Your task to perform on an android device: set an alarm Image 0: 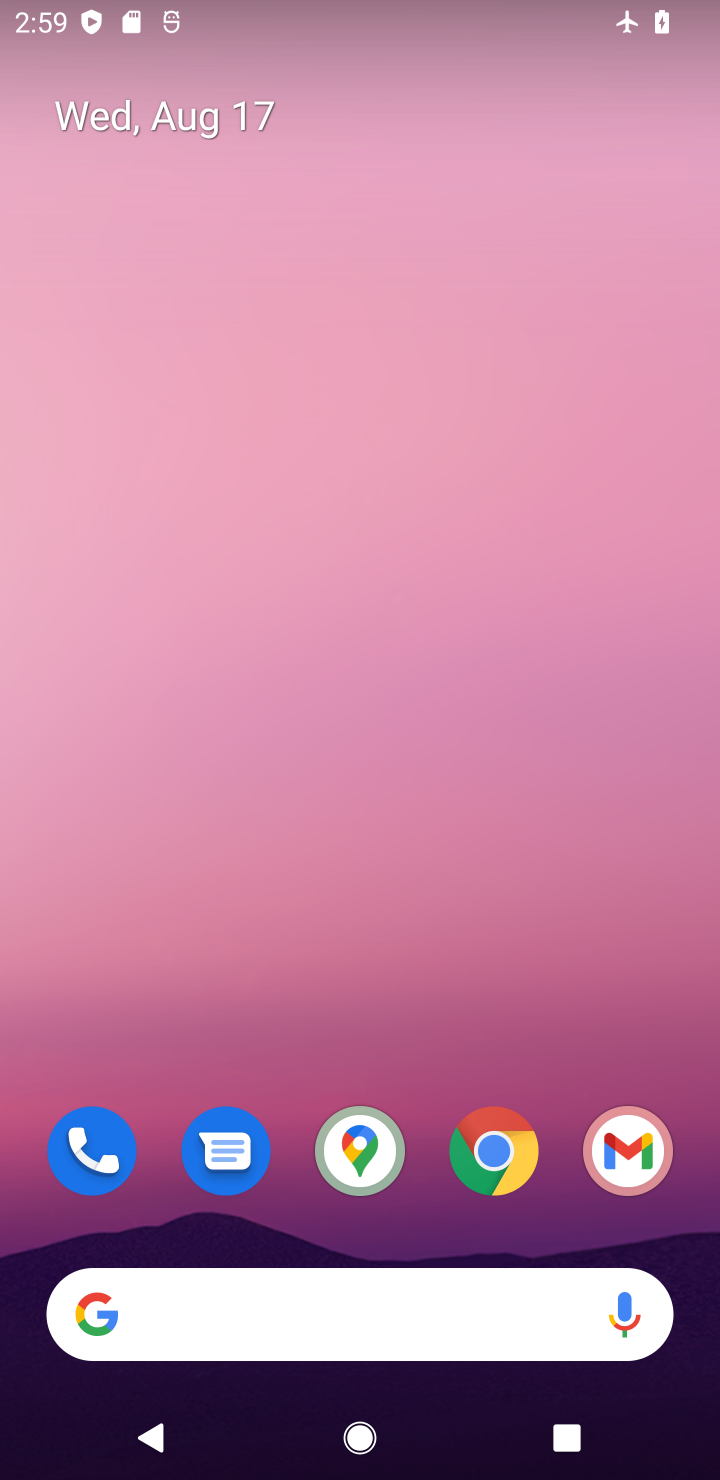
Step 0: drag from (376, 334) to (340, 82)
Your task to perform on an android device: set an alarm Image 1: 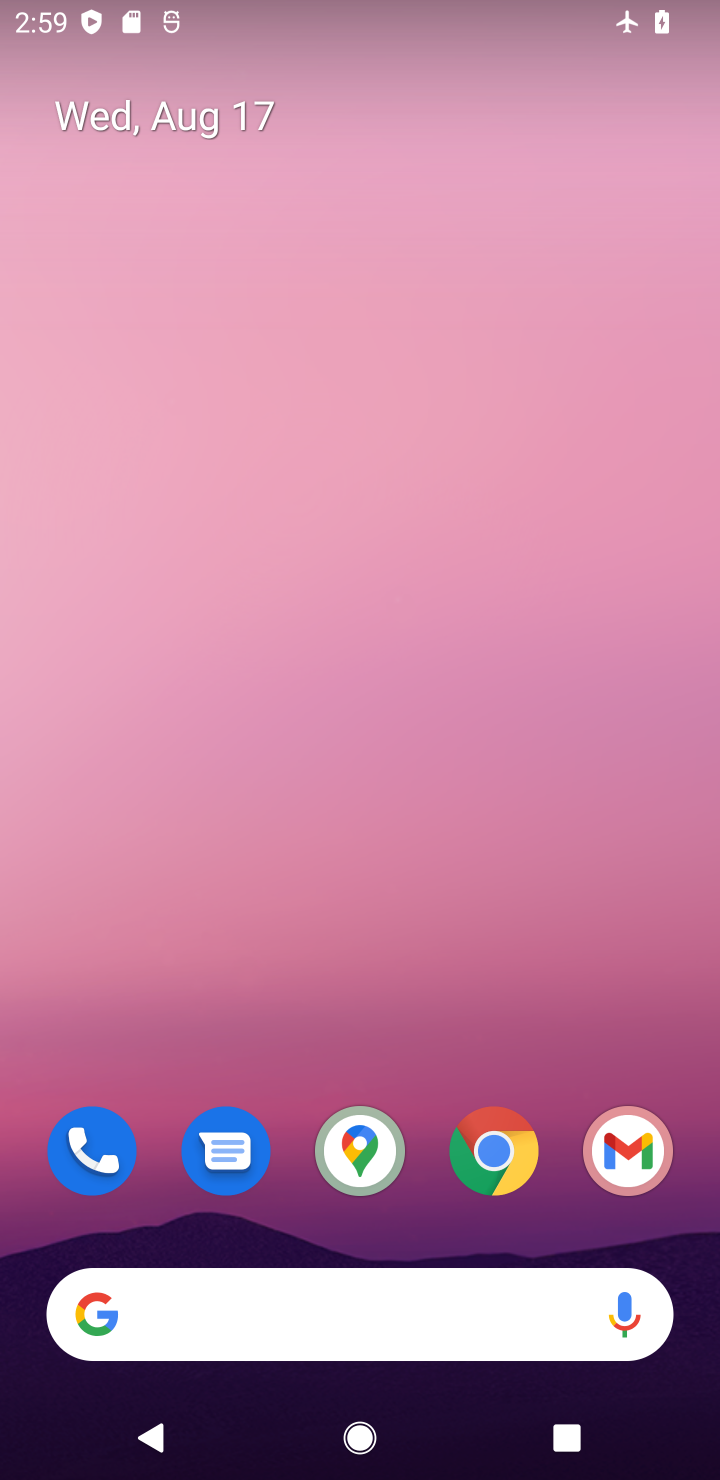
Step 1: drag from (314, 975) to (323, 339)
Your task to perform on an android device: set an alarm Image 2: 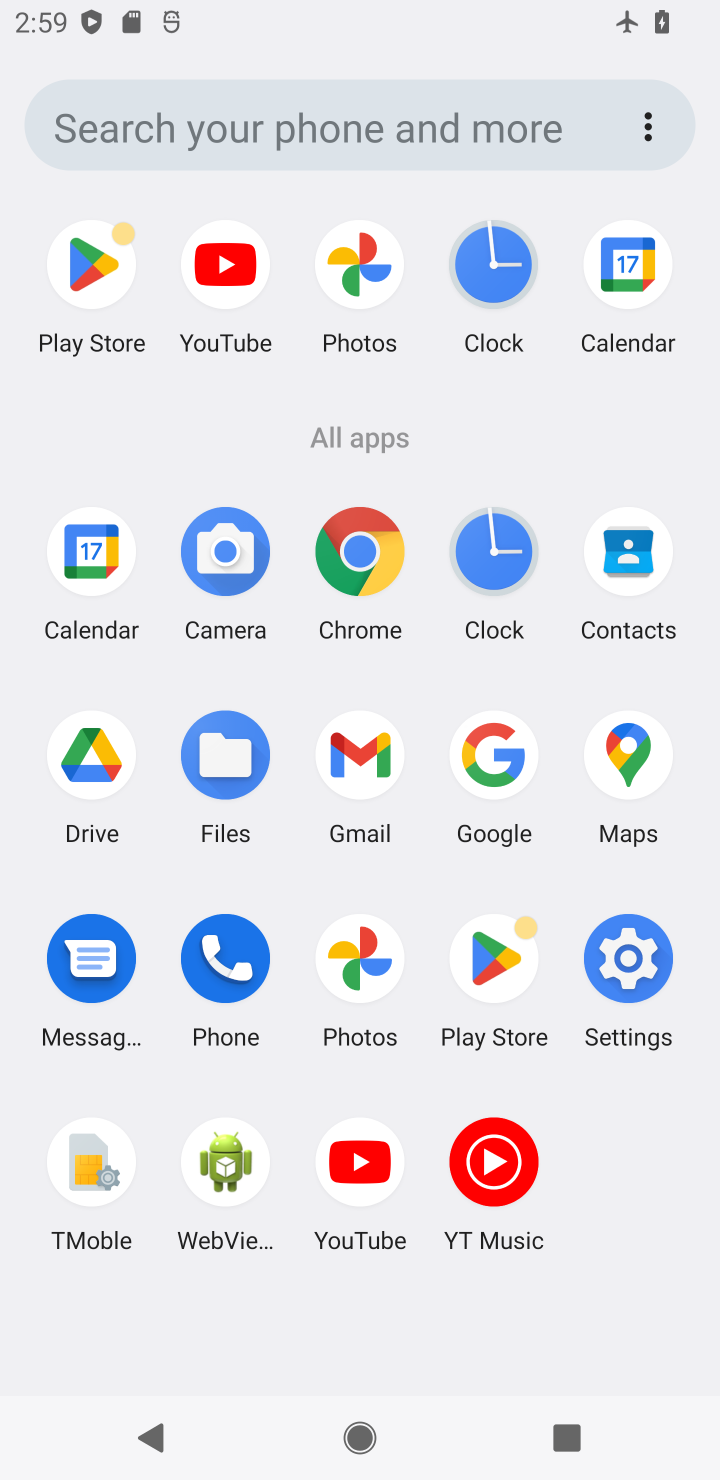
Step 2: click (496, 555)
Your task to perform on an android device: set an alarm Image 3: 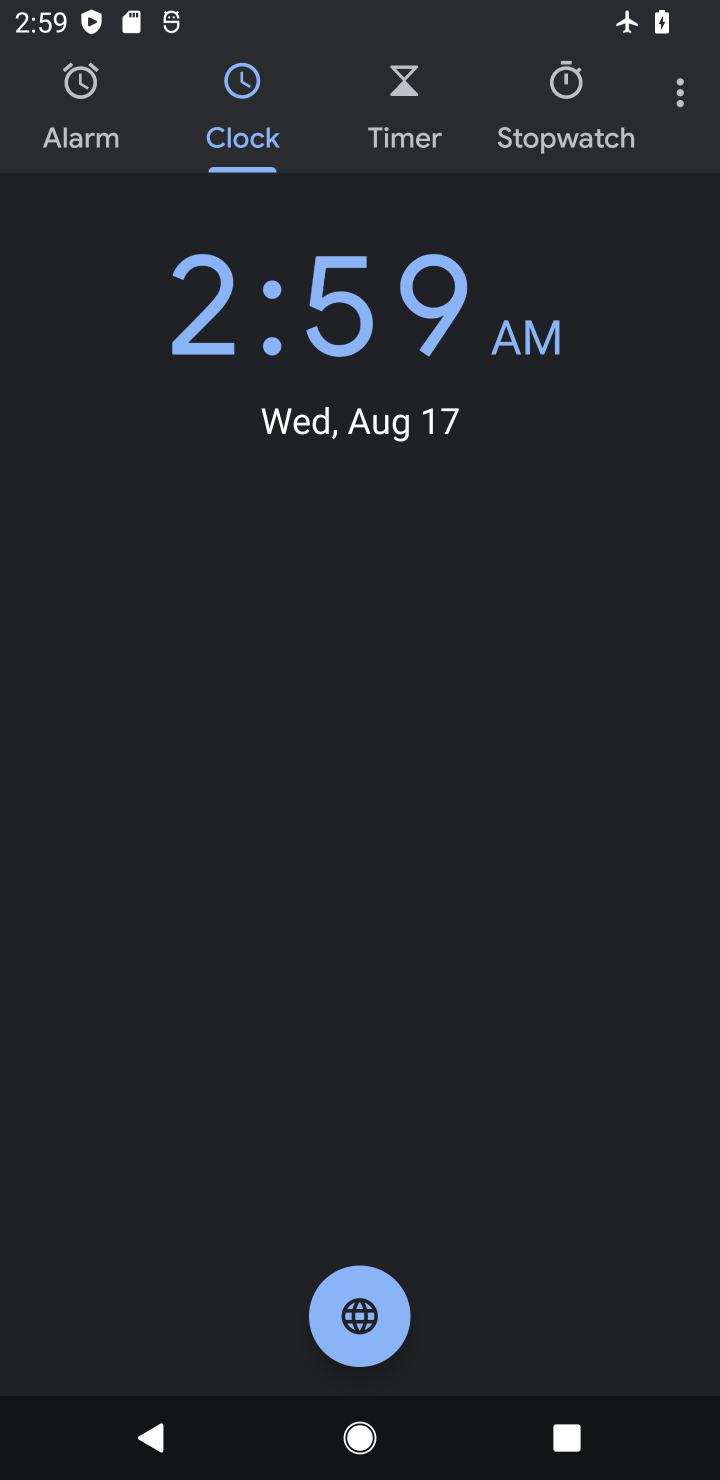
Step 3: click (93, 124)
Your task to perform on an android device: set an alarm Image 4: 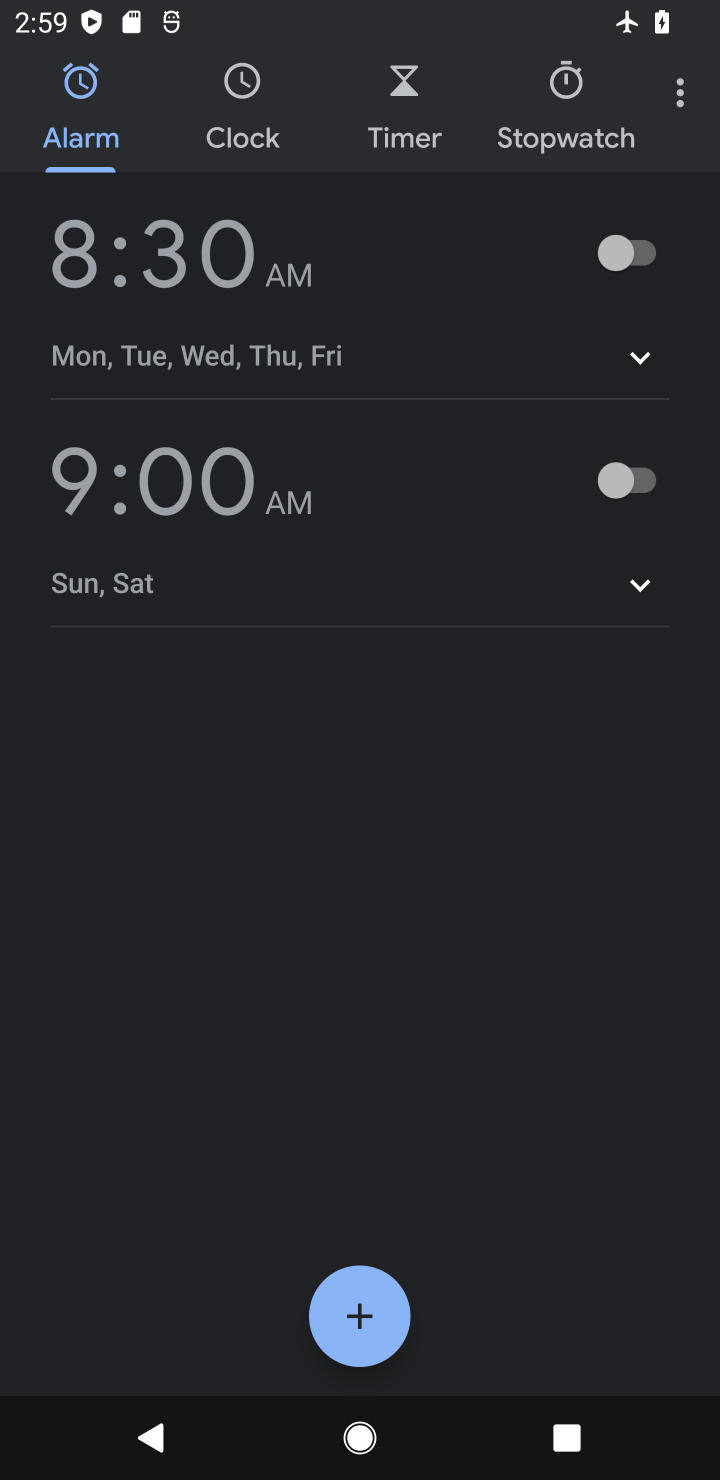
Step 4: click (605, 258)
Your task to perform on an android device: set an alarm Image 5: 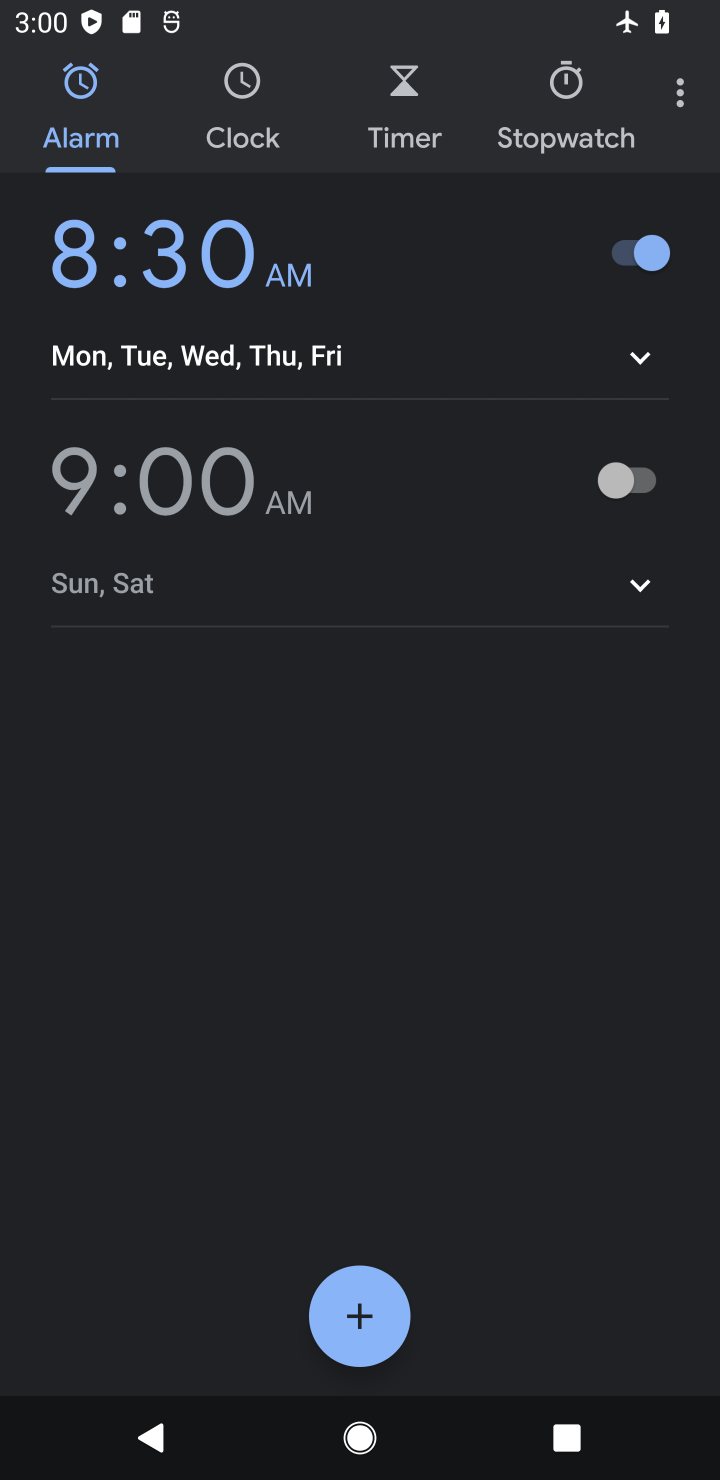
Step 5: task complete